Your task to perform on an android device: Open Youtube and go to "Your channel" Image 0: 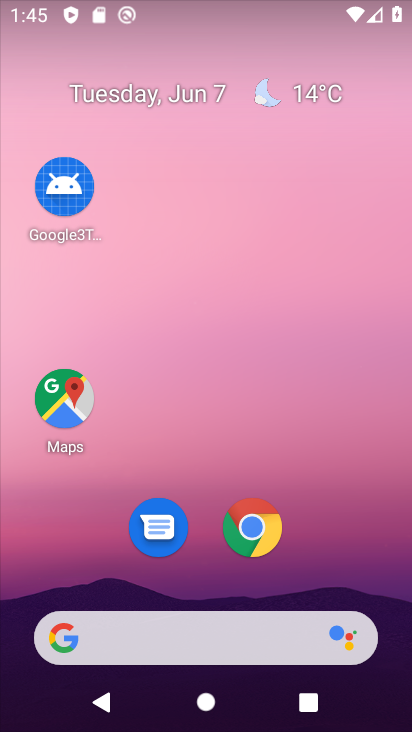
Step 0: drag from (295, 543) to (309, 35)
Your task to perform on an android device: Open Youtube and go to "Your channel" Image 1: 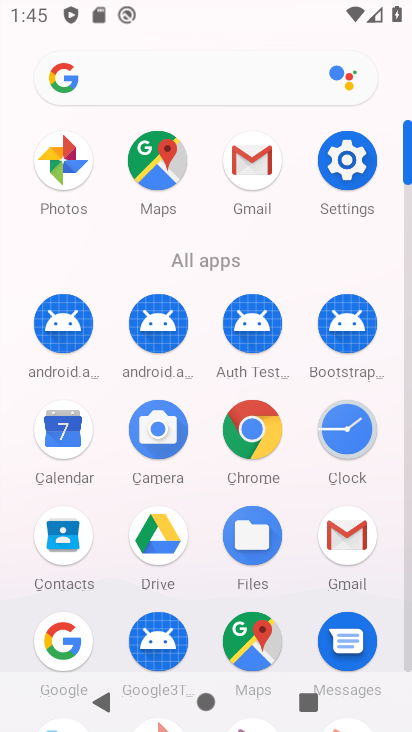
Step 1: drag from (198, 588) to (214, 122)
Your task to perform on an android device: Open Youtube and go to "Your channel" Image 2: 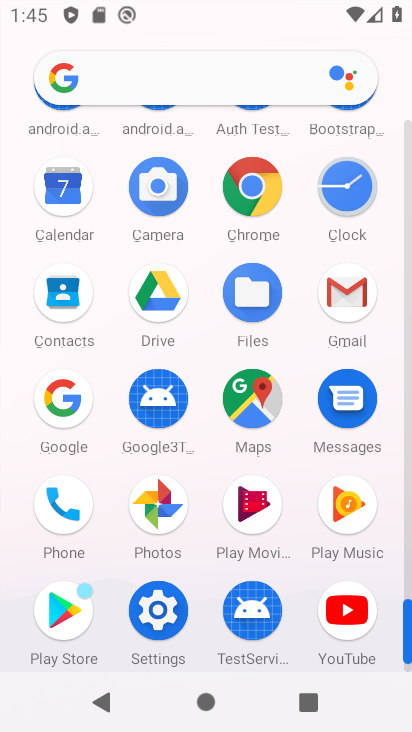
Step 2: click (356, 613)
Your task to perform on an android device: Open Youtube and go to "Your channel" Image 3: 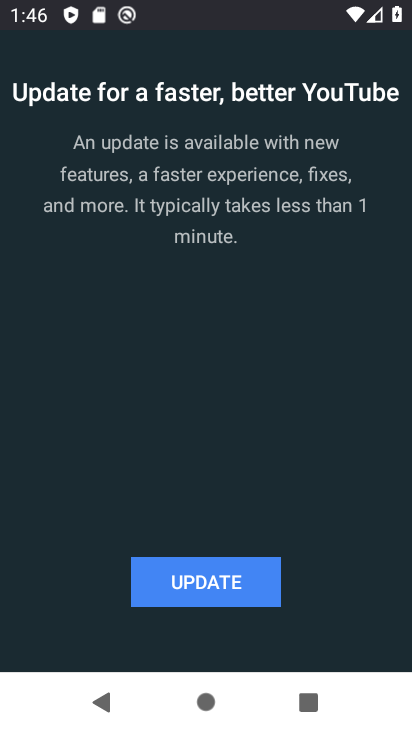
Step 3: click (217, 595)
Your task to perform on an android device: Open Youtube and go to "Your channel" Image 4: 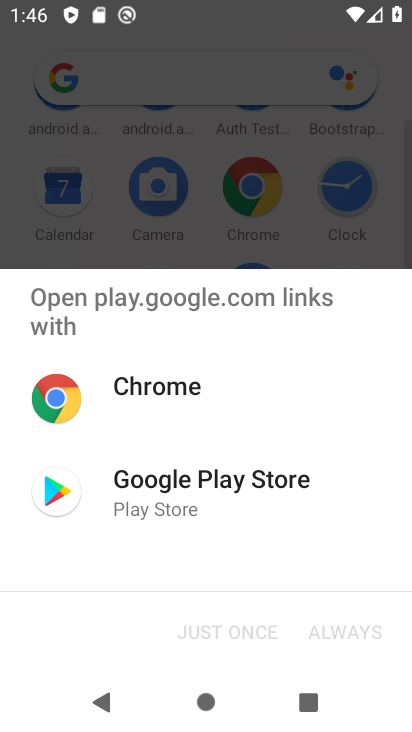
Step 4: task complete